Your task to perform on an android device: turn smart compose on in the gmail app Image 0: 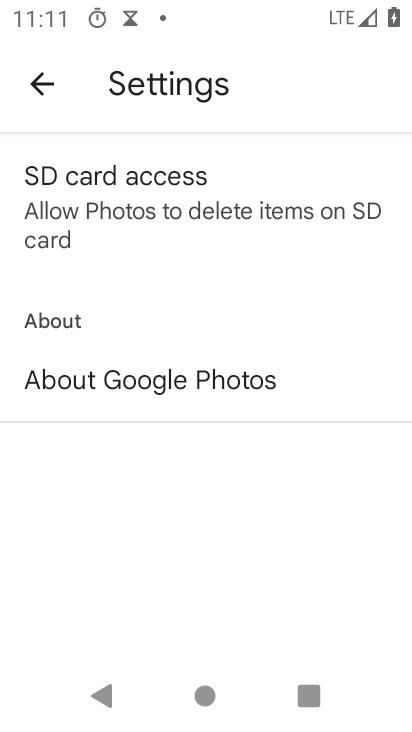
Step 0: press home button
Your task to perform on an android device: turn smart compose on in the gmail app Image 1: 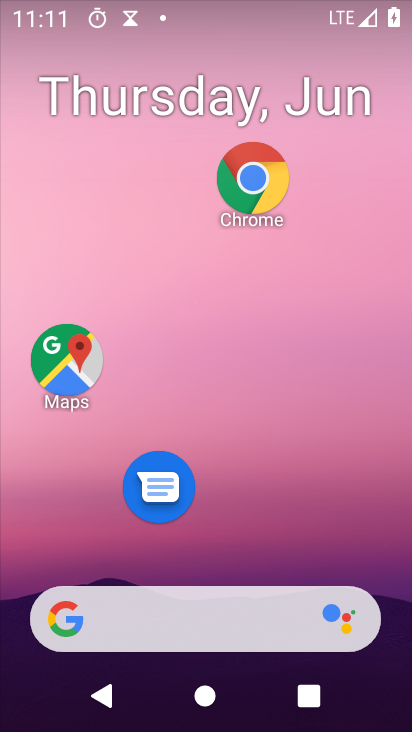
Step 1: drag from (231, 728) to (202, 11)
Your task to perform on an android device: turn smart compose on in the gmail app Image 2: 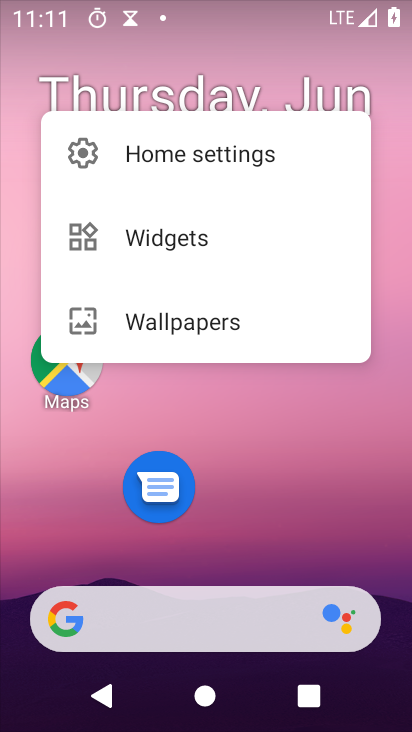
Step 2: click (275, 451)
Your task to perform on an android device: turn smart compose on in the gmail app Image 3: 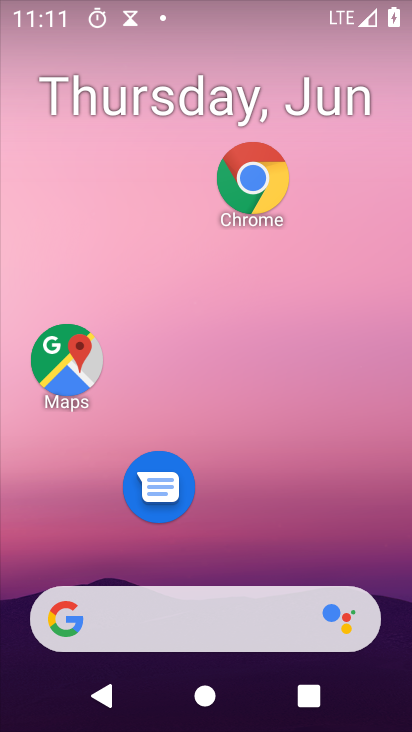
Step 3: drag from (245, 722) to (244, 160)
Your task to perform on an android device: turn smart compose on in the gmail app Image 4: 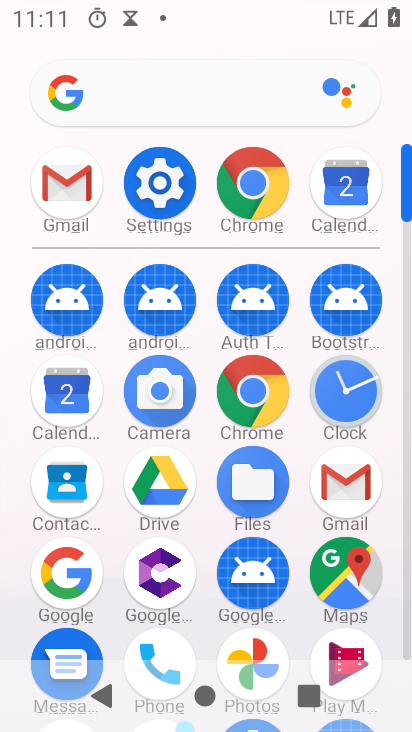
Step 4: click (342, 486)
Your task to perform on an android device: turn smart compose on in the gmail app Image 5: 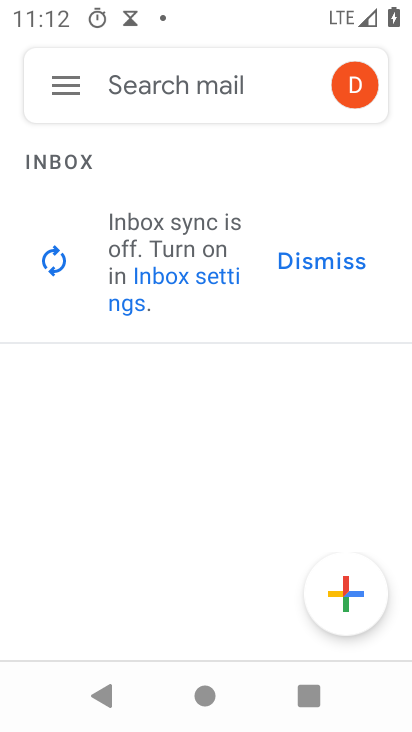
Step 5: click (63, 84)
Your task to perform on an android device: turn smart compose on in the gmail app Image 6: 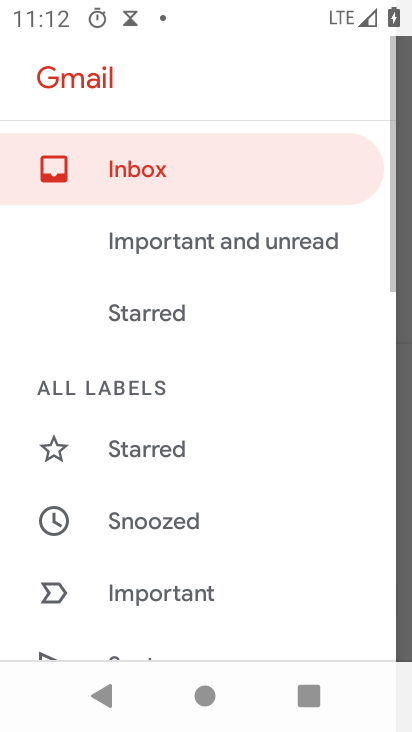
Step 6: drag from (162, 624) to (164, 190)
Your task to perform on an android device: turn smart compose on in the gmail app Image 7: 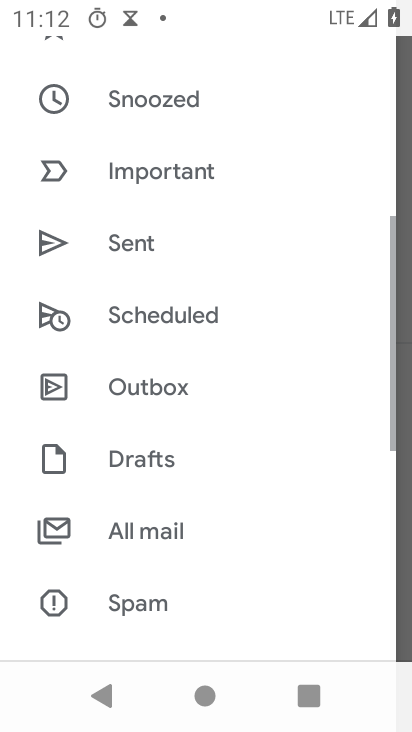
Step 7: drag from (158, 631) to (165, 191)
Your task to perform on an android device: turn smart compose on in the gmail app Image 8: 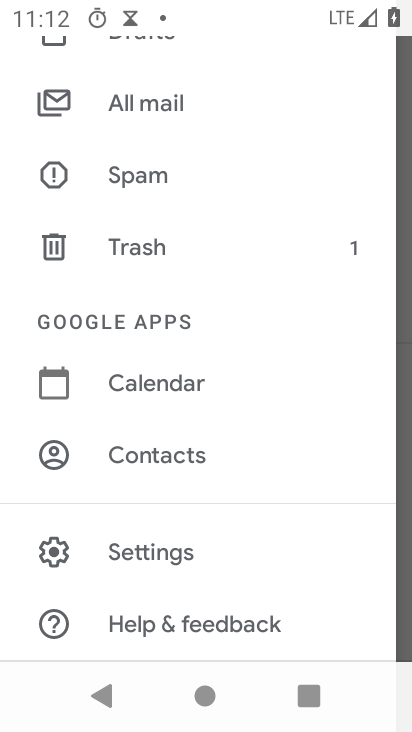
Step 8: click (142, 544)
Your task to perform on an android device: turn smart compose on in the gmail app Image 9: 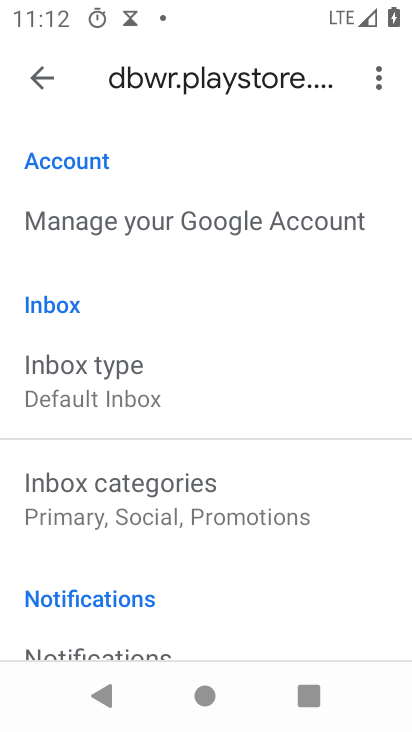
Step 9: task complete